Your task to perform on an android device: Go to ESPN.com Image 0: 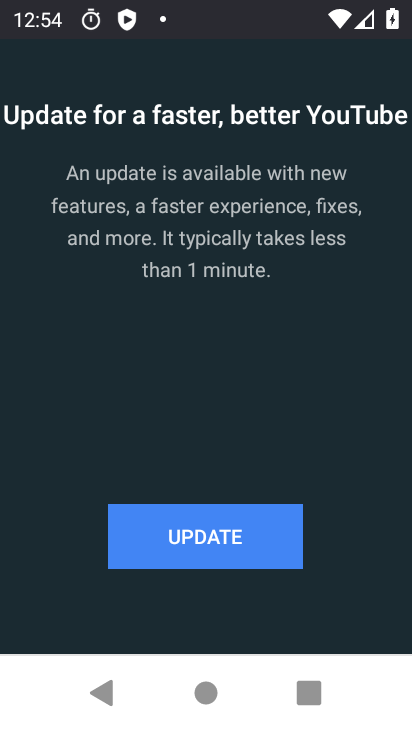
Step 0: press home button
Your task to perform on an android device: Go to ESPN.com Image 1: 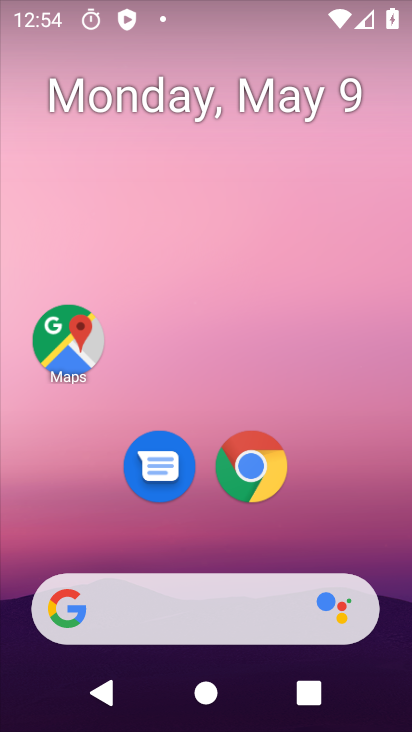
Step 1: click (276, 483)
Your task to perform on an android device: Go to ESPN.com Image 2: 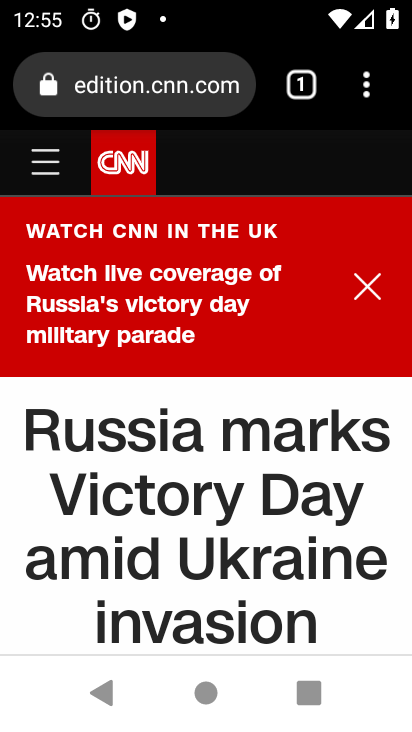
Step 2: click (223, 95)
Your task to perform on an android device: Go to ESPN.com Image 3: 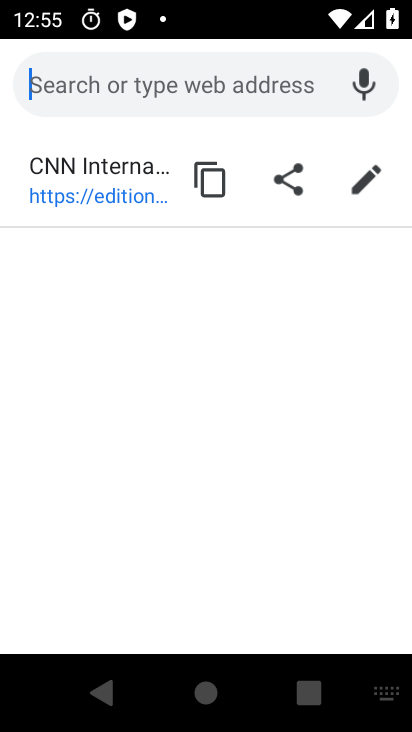
Step 3: type "espn.com"
Your task to perform on an android device: Go to ESPN.com Image 4: 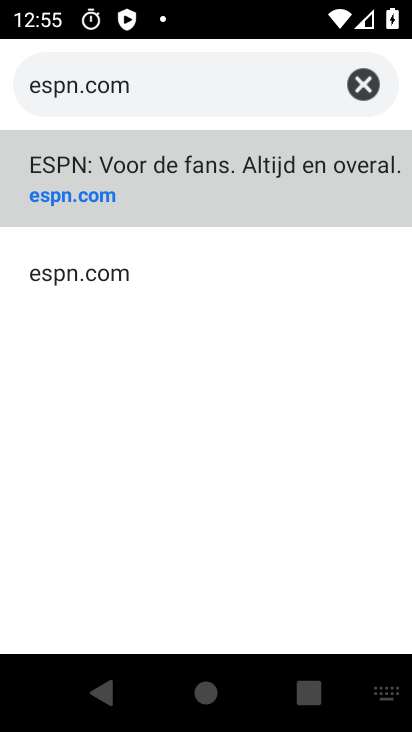
Step 4: click (194, 204)
Your task to perform on an android device: Go to ESPN.com Image 5: 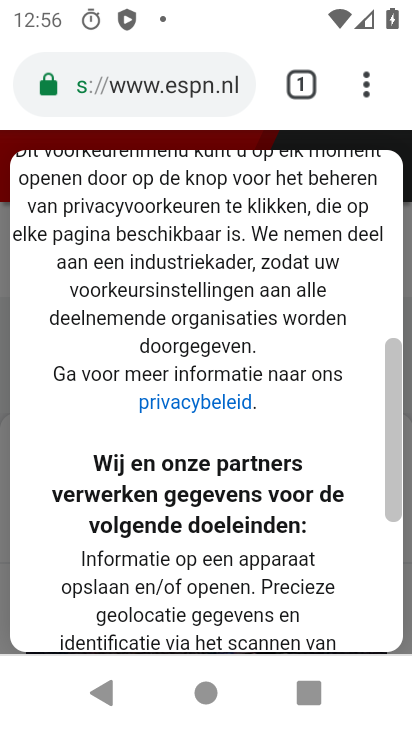
Step 5: task complete